Your task to perform on an android device: toggle notifications settings in the gmail app Image 0: 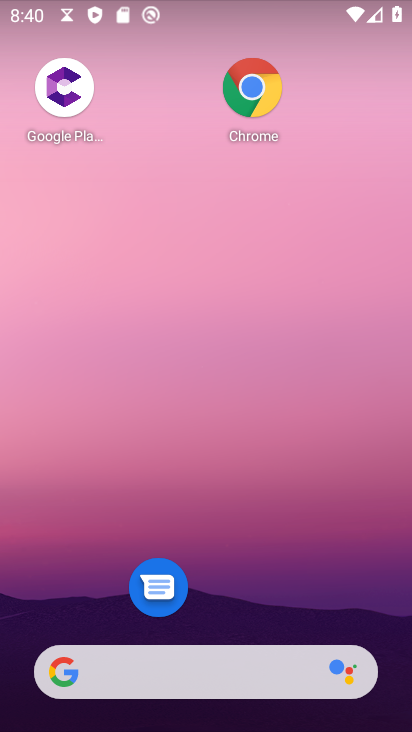
Step 0: drag from (250, 591) to (262, 57)
Your task to perform on an android device: toggle notifications settings in the gmail app Image 1: 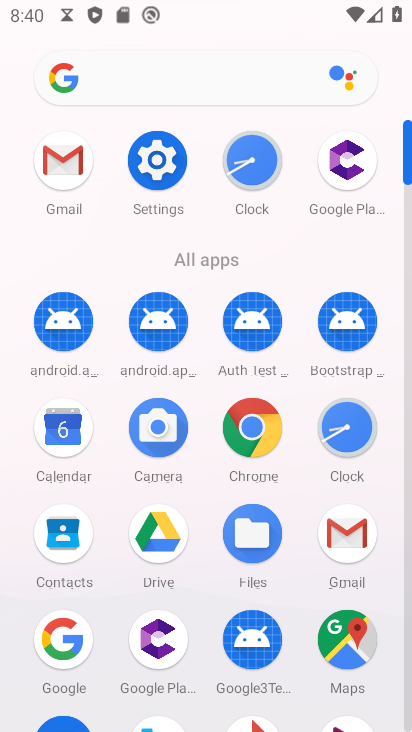
Step 1: click (359, 526)
Your task to perform on an android device: toggle notifications settings in the gmail app Image 2: 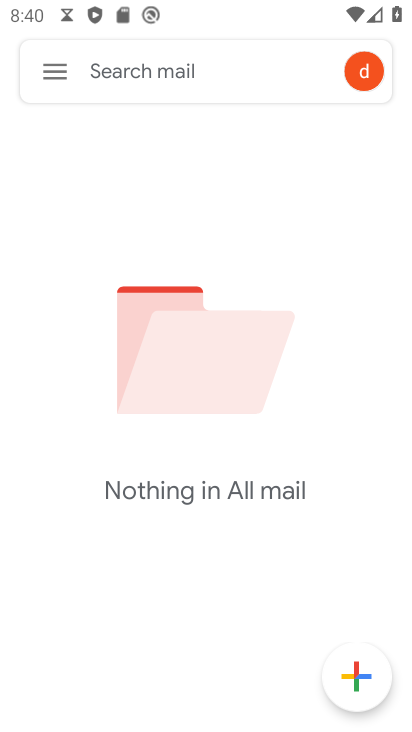
Step 2: click (42, 81)
Your task to perform on an android device: toggle notifications settings in the gmail app Image 3: 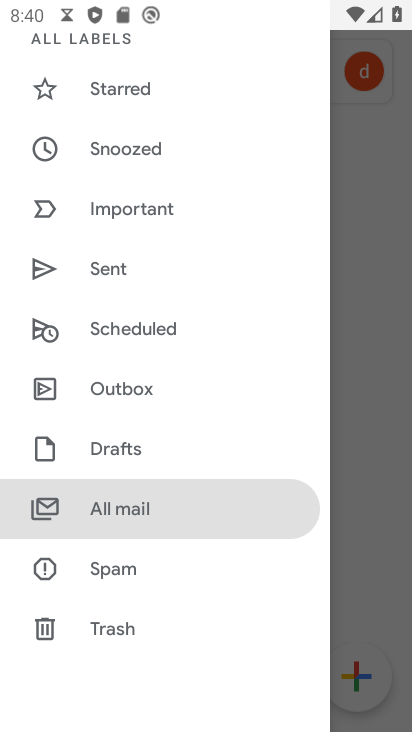
Step 3: drag from (107, 576) to (124, 313)
Your task to perform on an android device: toggle notifications settings in the gmail app Image 4: 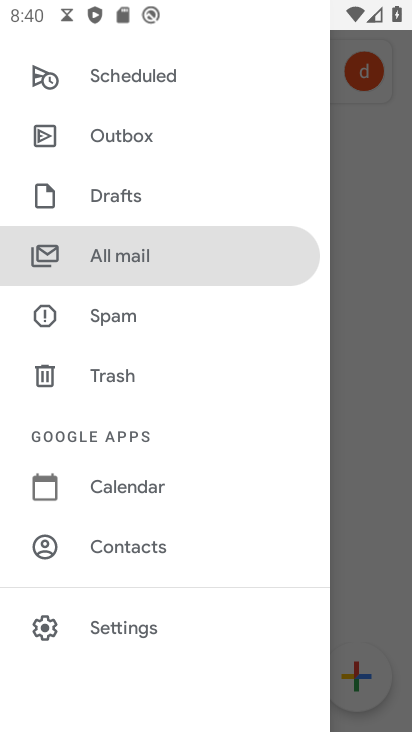
Step 4: click (115, 636)
Your task to perform on an android device: toggle notifications settings in the gmail app Image 5: 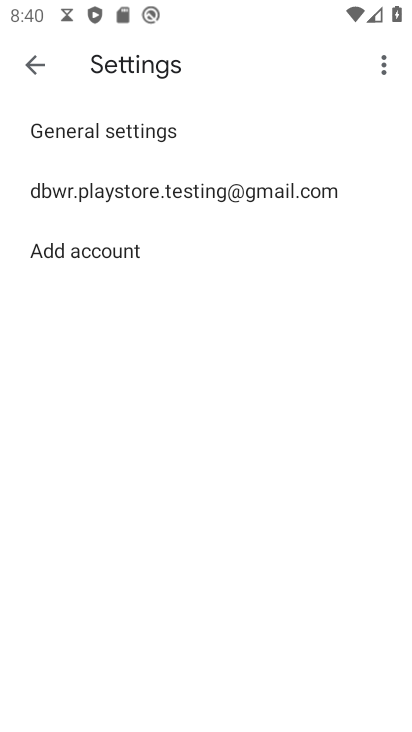
Step 5: click (108, 140)
Your task to perform on an android device: toggle notifications settings in the gmail app Image 6: 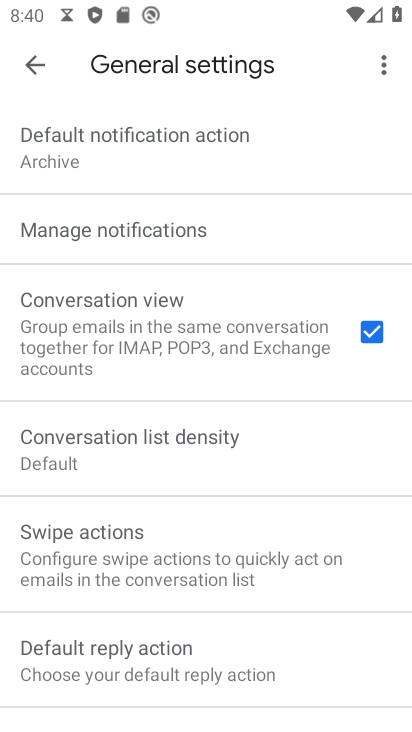
Step 6: click (139, 238)
Your task to perform on an android device: toggle notifications settings in the gmail app Image 7: 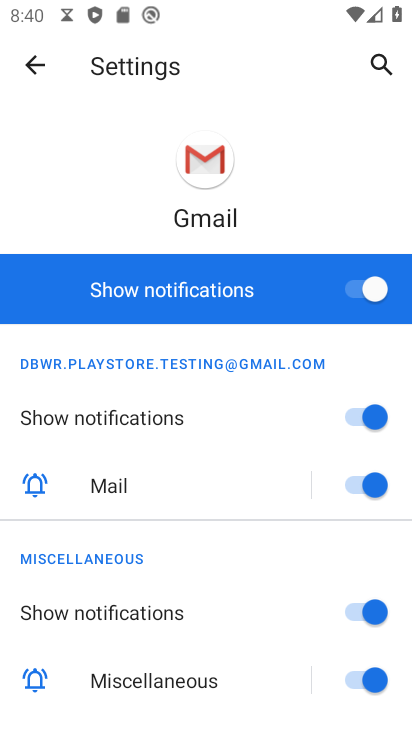
Step 7: click (335, 287)
Your task to perform on an android device: toggle notifications settings in the gmail app Image 8: 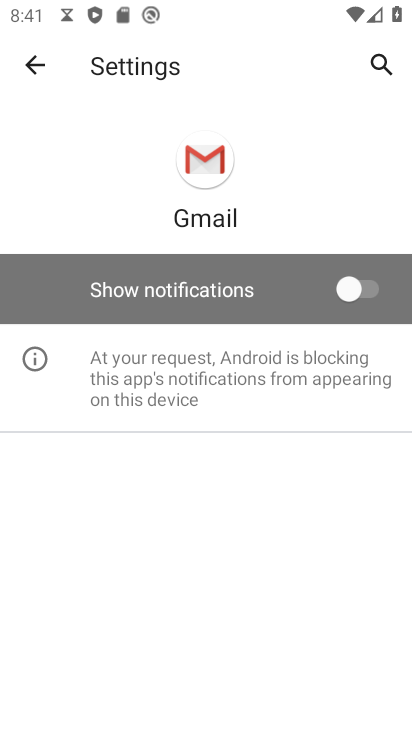
Step 8: task complete